Your task to perform on an android device: When is my next appointment? Image 0: 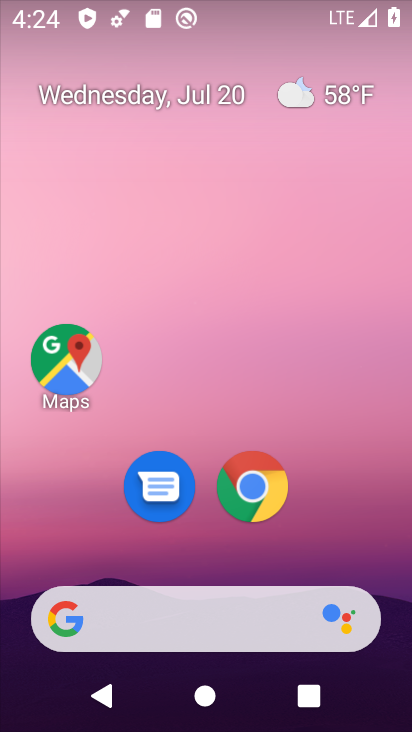
Step 0: drag from (172, 524) to (221, 0)
Your task to perform on an android device: When is my next appointment? Image 1: 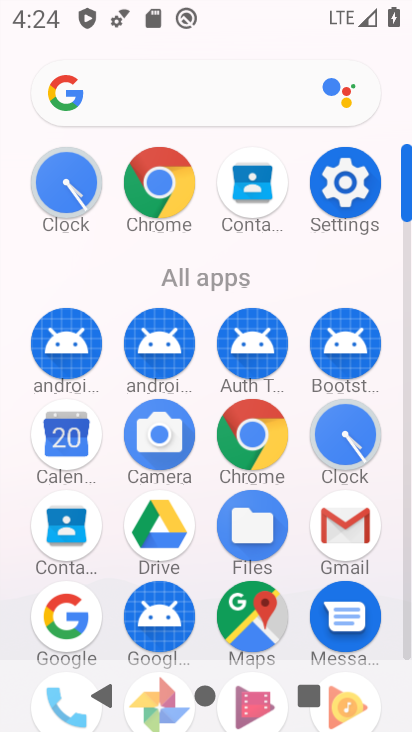
Step 1: click (348, 433)
Your task to perform on an android device: When is my next appointment? Image 2: 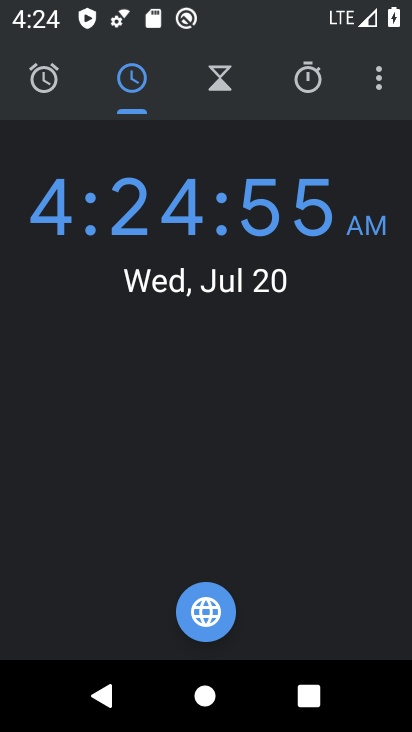
Step 2: click (311, 78)
Your task to perform on an android device: When is my next appointment? Image 3: 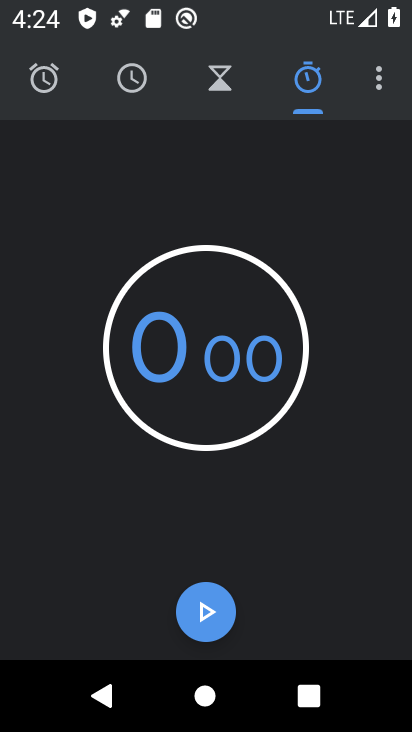
Step 3: click (215, 79)
Your task to perform on an android device: When is my next appointment? Image 4: 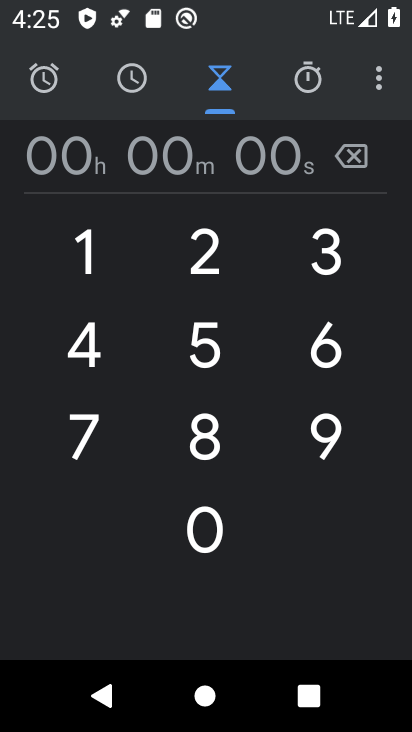
Step 4: press back button
Your task to perform on an android device: When is my next appointment? Image 5: 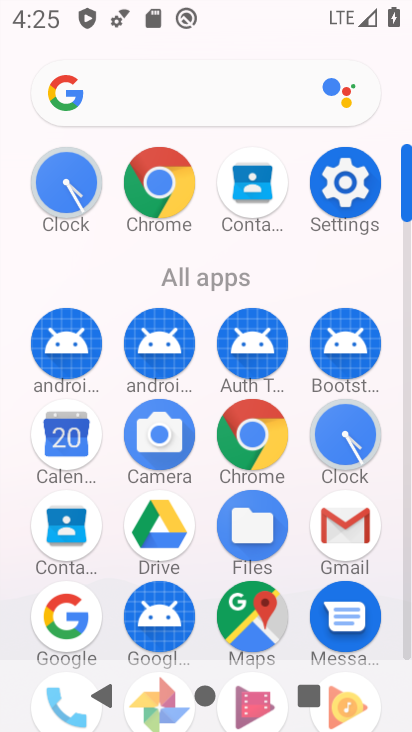
Step 5: click (60, 444)
Your task to perform on an android device: When is my next appointment? Image 6: 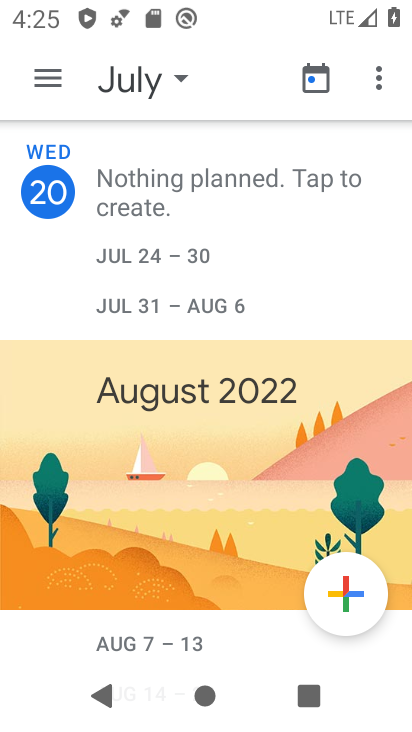
Step 6: task complete